Your task to perform on an android device: What's on my calendar today? Image 0: 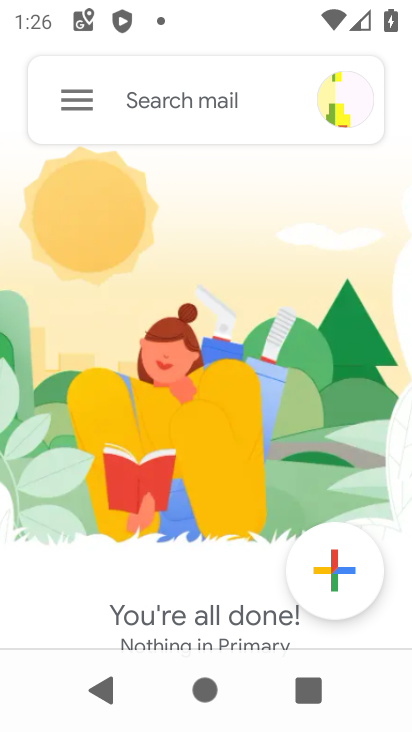
Step 0: press home button
Your task to perform on an android device: What's on my calendar today? Image 1: 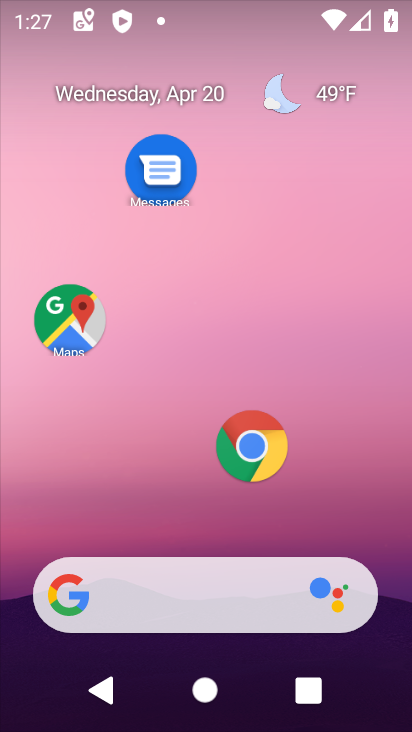
Step 1: drag from (198, 532) to (233, 98)
Your task to perform on an android device: What's on my calendar today? Image 2: 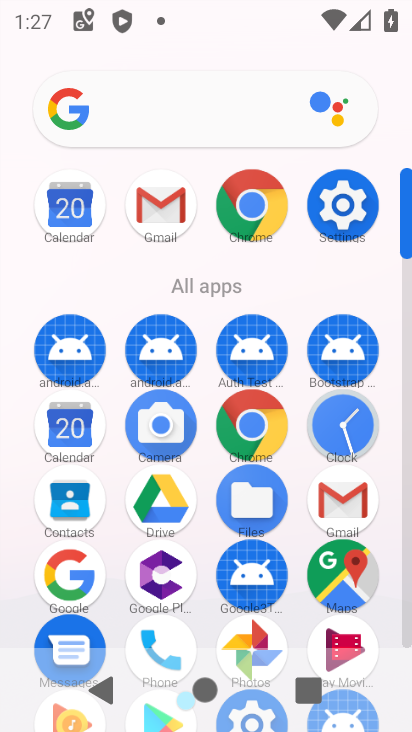
Step 2: click (69, 422)
Your task to perform on an android device: What's on my calendar today? Image 3: 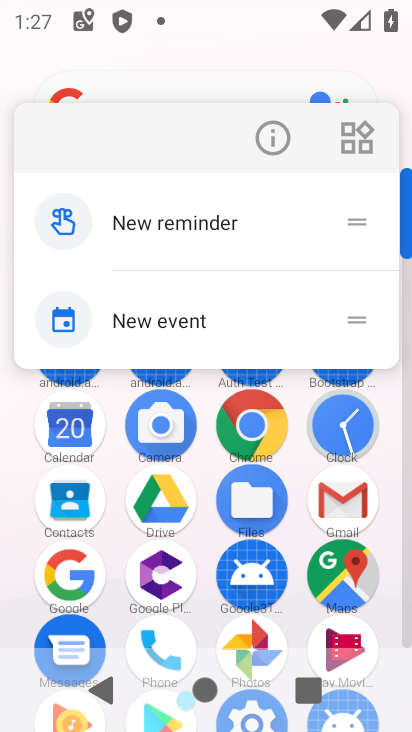
Step 3: click (69, 423)
Your task to perform on an android device: What's on my calendar today? Image 4: 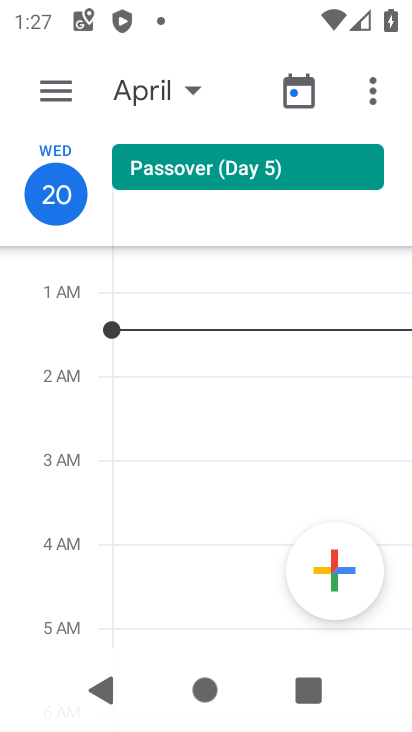
Step 4: click (66, 429)
Your task to perform on an android device: What's on my calendar today? Image 5: 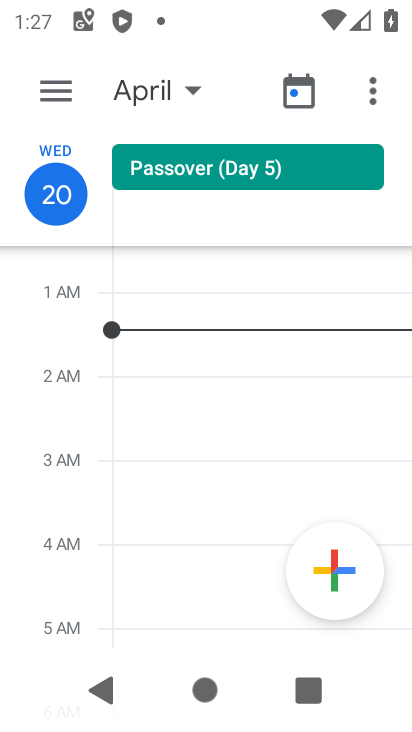
Step 5: task complete